Your task to perform on an android device: Go to display settings Image 0: 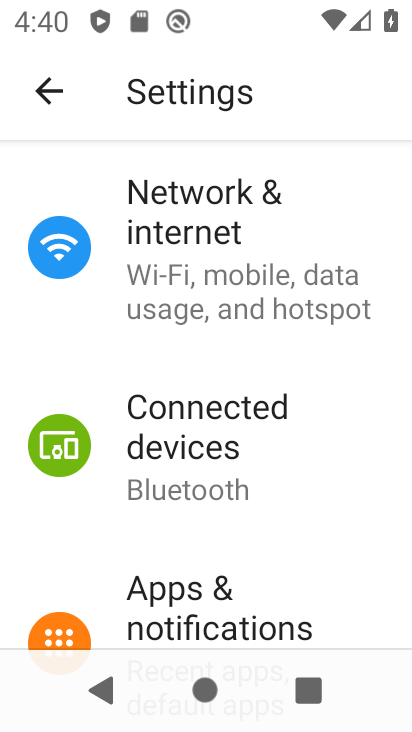
Step 0: drag from (291, 506) to (340, 245)
Your task to perform on an android device: Go to display settings Image 1: 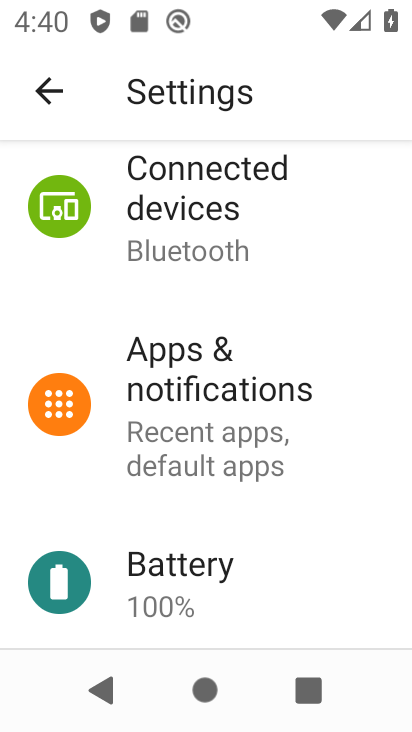
Step 1: drag from (330, 541) to (372, 268)
Your task to perform on an android device: Go to display settings Image 2: 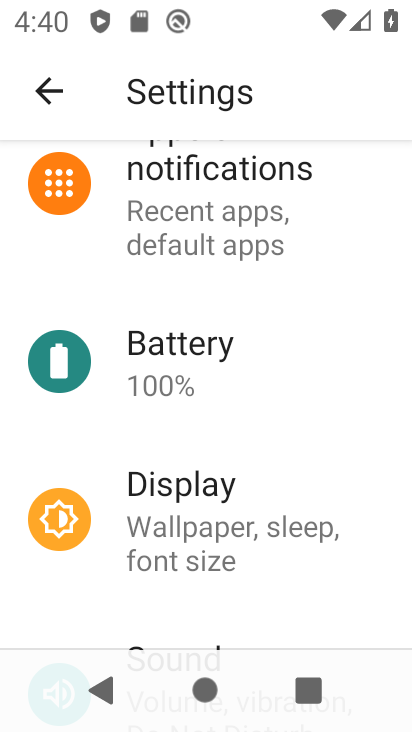
Step 2: click (286, 536)
Your task to perform on an android device: Go to display settings Image 3: 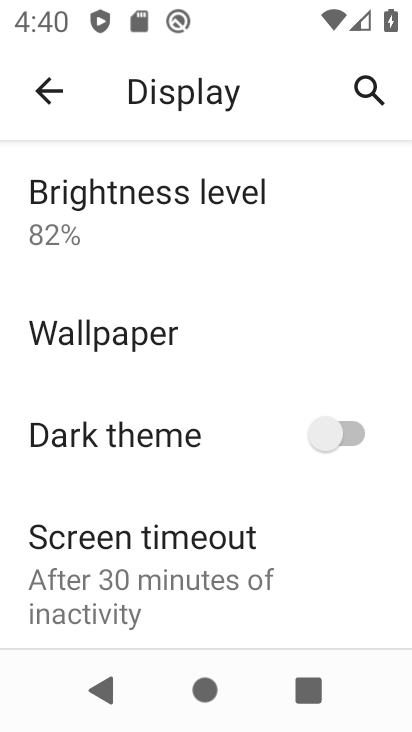
Step 3: task complete